Your task to perform on an android device: Go to privacy settings Image 0: 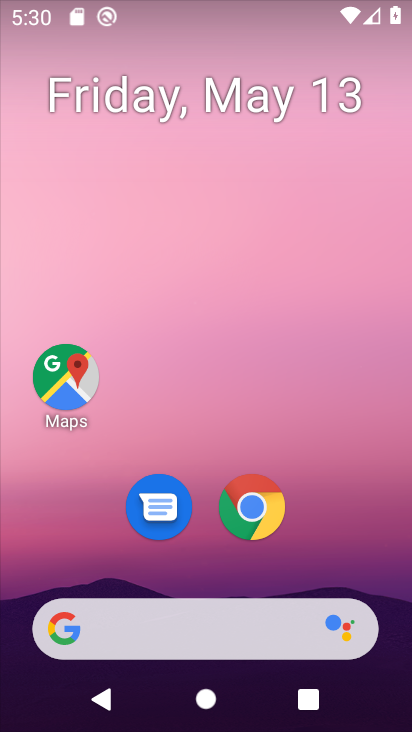
Step 0: drag from (210, 572) to (175, 155)
Your task to perform on an android device: Go to privacy settings Image 1: 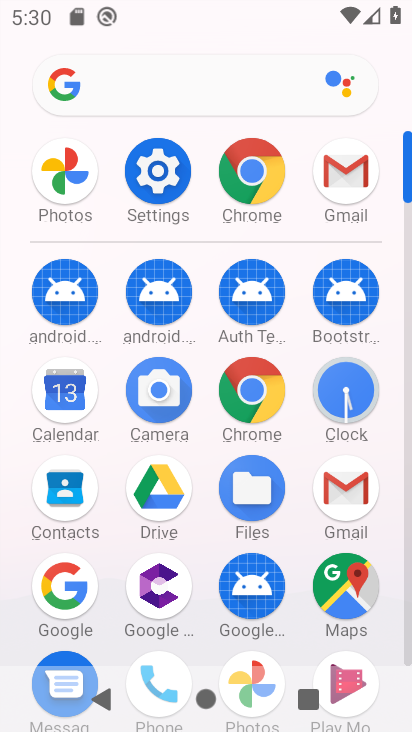
Step 1: click (144, 178)
Your task to perform on an android device: Go to privacy settings Image 2: 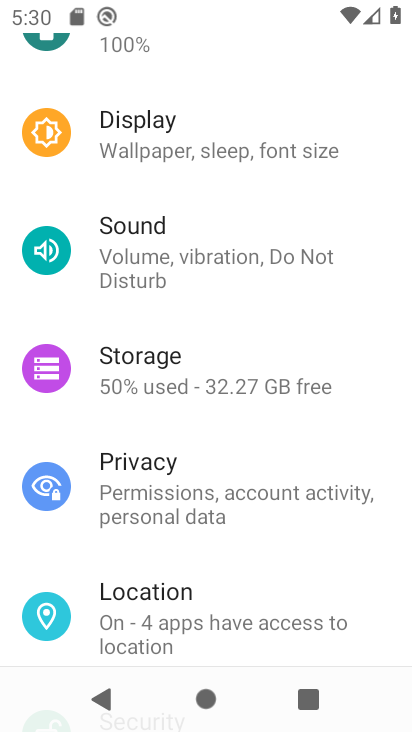
Step 2: click (207, 495)
Your task to perform on an android device: Go to privacy settings Image 3: 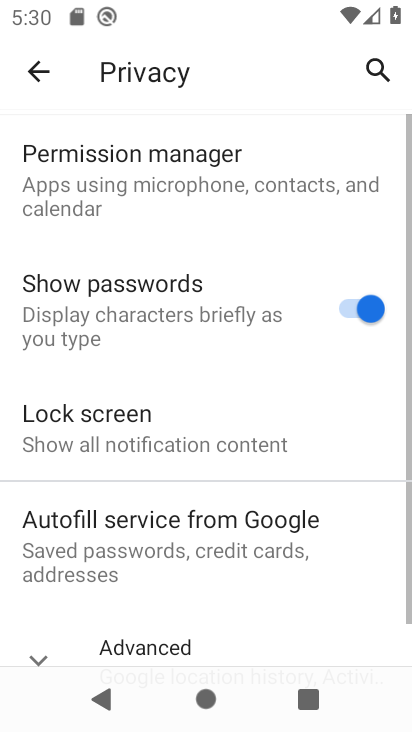
Step 3: task complete